Your task to perform on an android device: Open the Play Movies app and select the watchlist tab. Image 0: 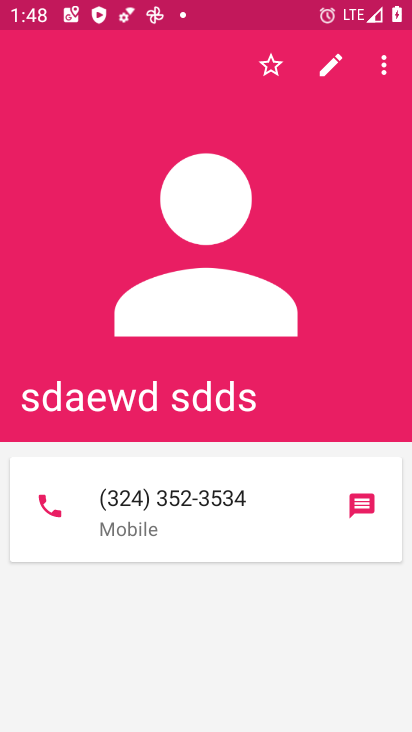
Step 0: press home button
Your task to perform on an android device: Open the Play Movies app and select the watchlist tab. Image 1: 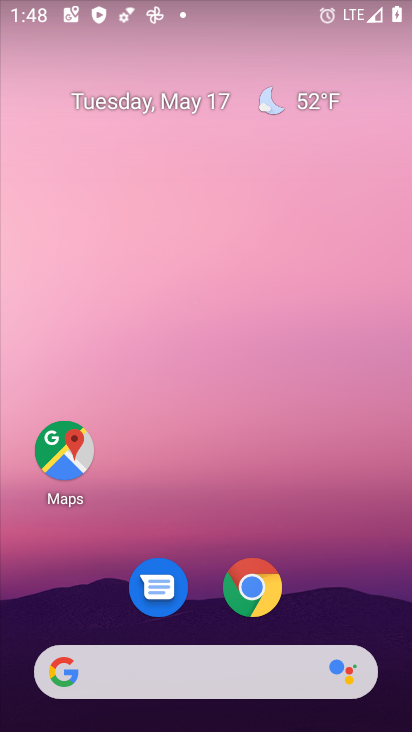
Step 1: drag from (344, 594) to (233, 196)
Your task to perform on an android device: Open the Play Movies app and select the watchlist tab. Image 2: 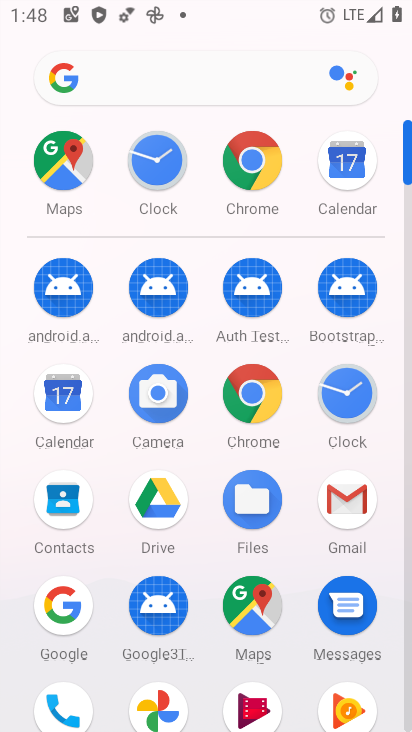
Step 2: click (250, 695)
Your task to perform on an android device: Open the Play Movies app and select the watchlist tab. Image 3: 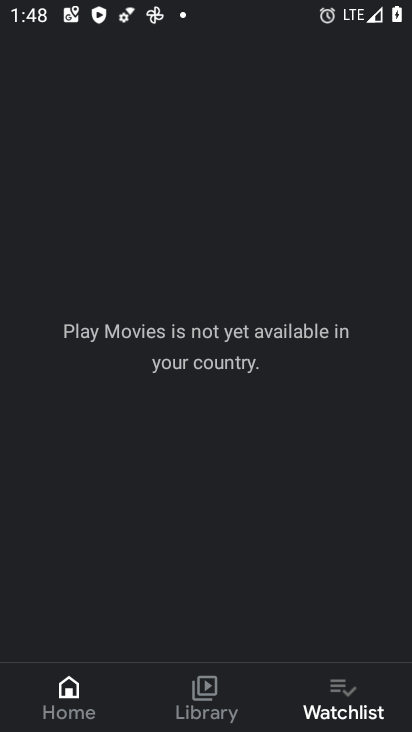
Step 3: task complete